Your task to perform on an android device: set an alarm Image 0: 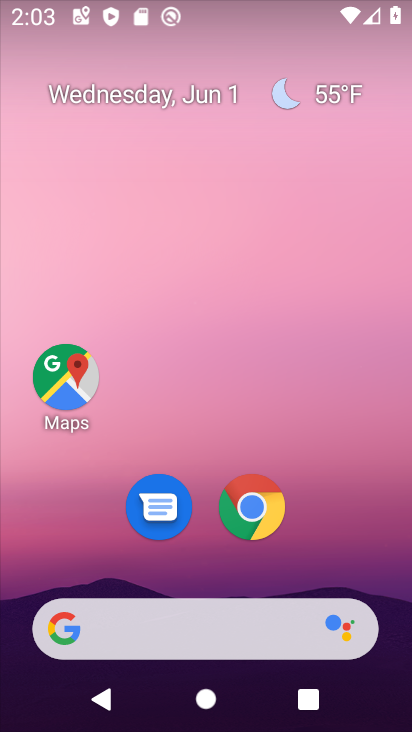
Step 0: drag from (372, 568) to (353, 7)
Your task to perform on an android device: set an alarm Image 1: 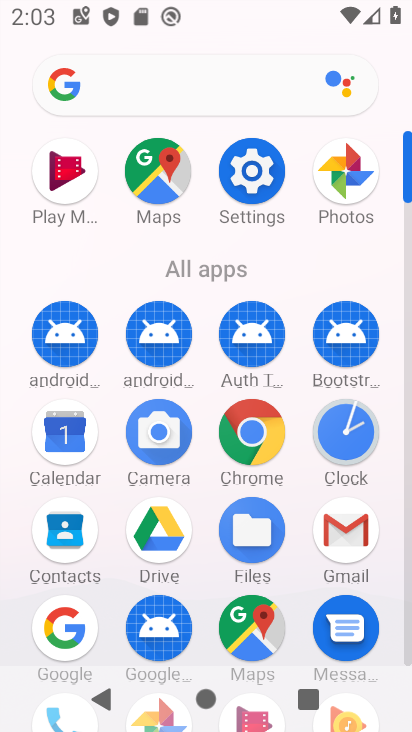
Step 1: click (359, 441)
Your task to perform on an android device: set an alarm Image 2: 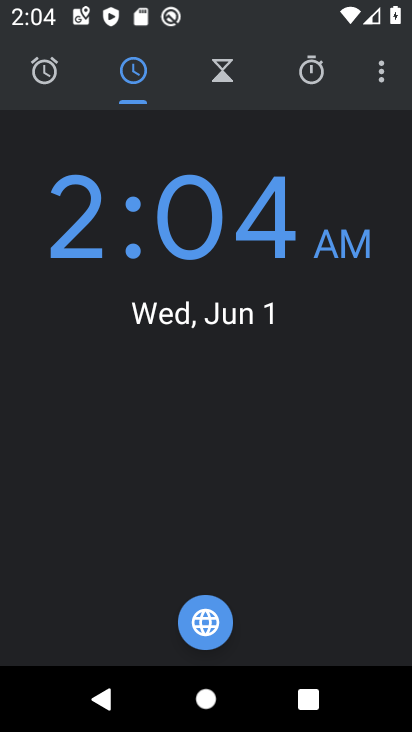
Step 2: click (42, 81)
Your task to perform on an android device: set an alarm Image 3: 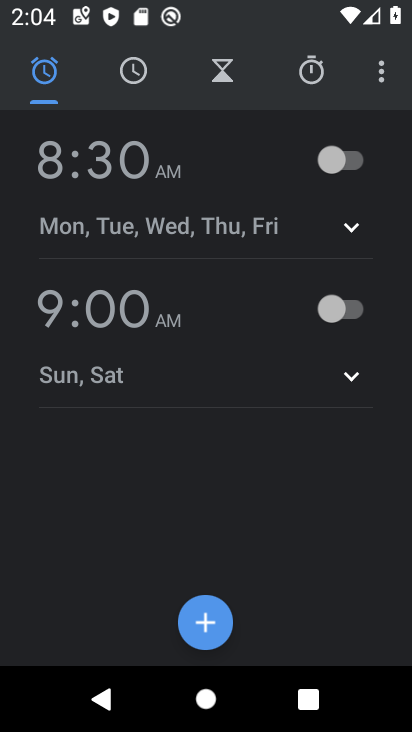
Step 3: click (201, 629)
Your task to perform on an android device: set an alarm Image 4: 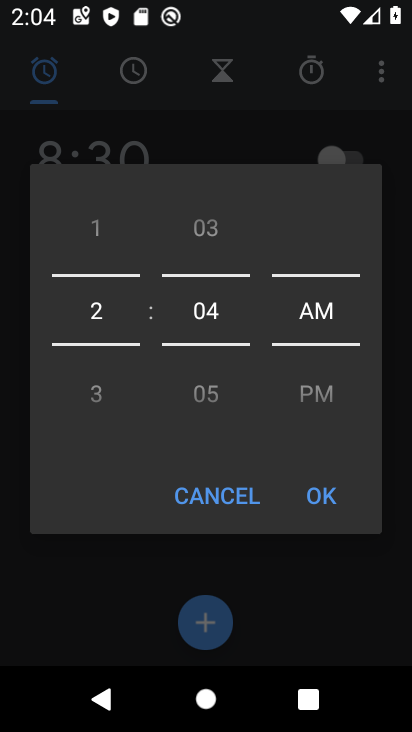
Step 4: drag from (91, 309) to (93, 206)
Your task to perform on an android device: set an alarm Image 5: 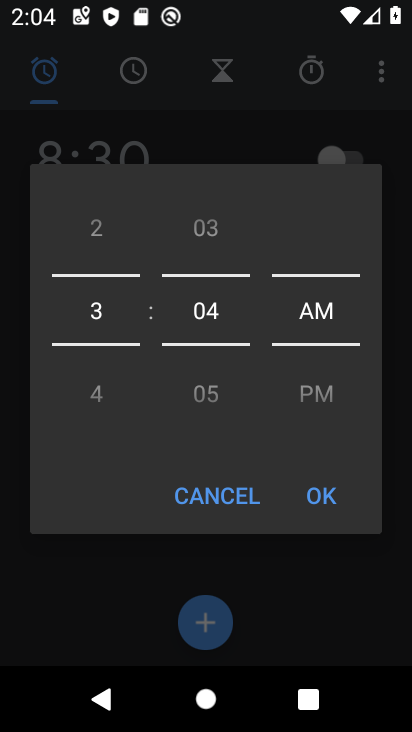
Step 5: drag from (89, 371) to (92, 240)
Your task to perform on an android device: set an alarm Image 6: 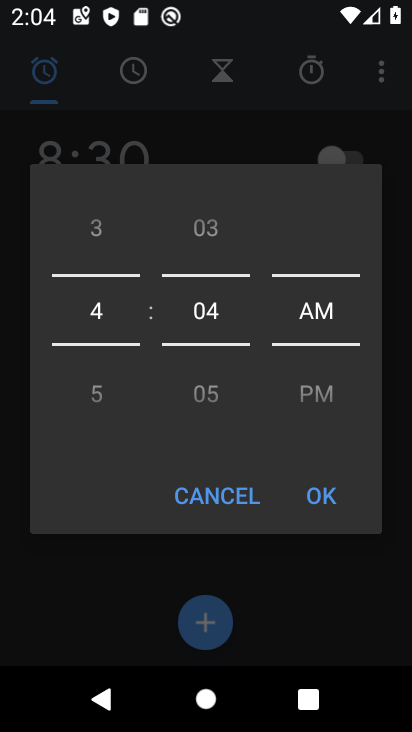
Step 6: drag from (200, 314) to (202, 241)
Your task to perform on an android device: set an alarm Image 7: 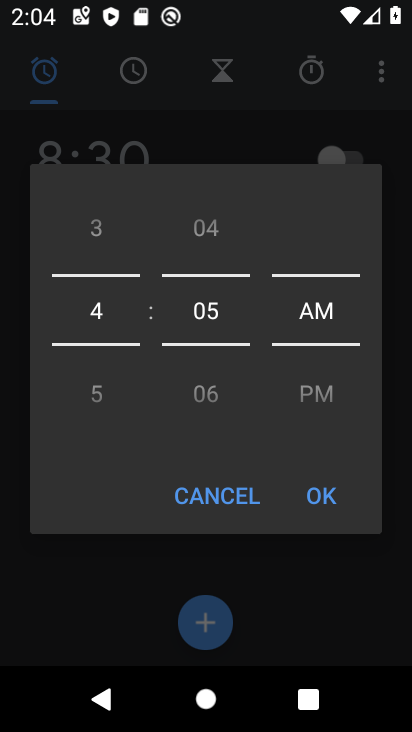
Step 7: click (328, 487)
Your task to perform on an android device: set an alarm Image 8: 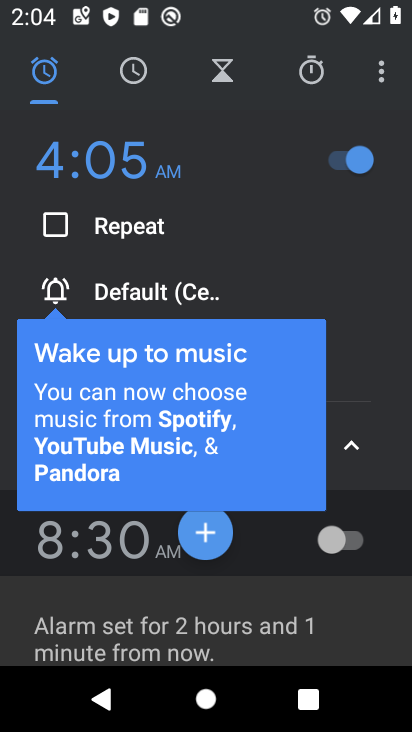
Step 8: task complete